Your task to perform on an android device: Search for a new desk on IKEA Image 0: 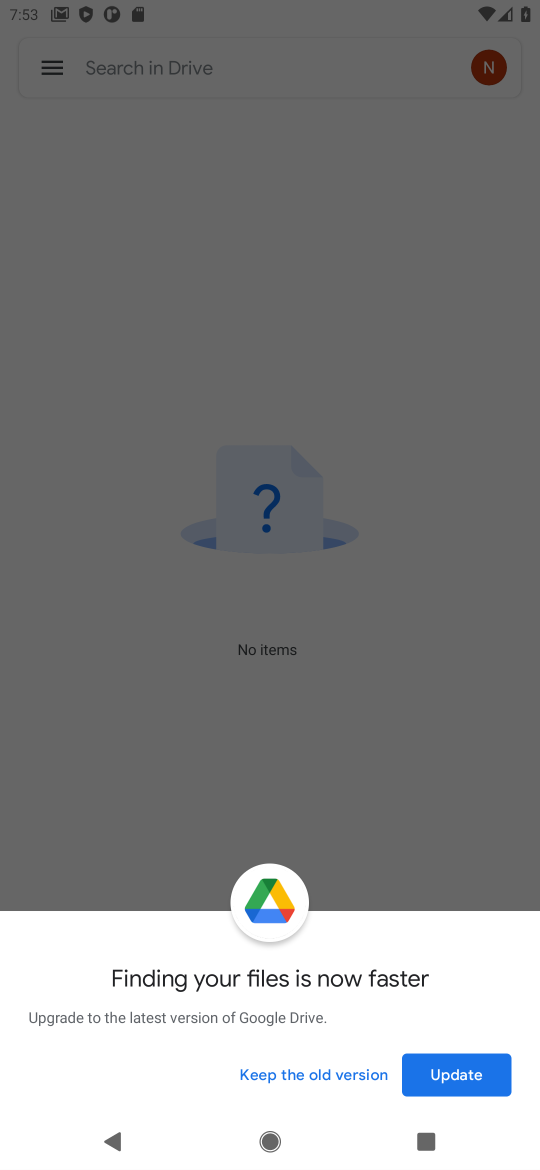
Step 0: press home button
Your task to perform on an android device: Search for a new desk on IKEA Image 1: 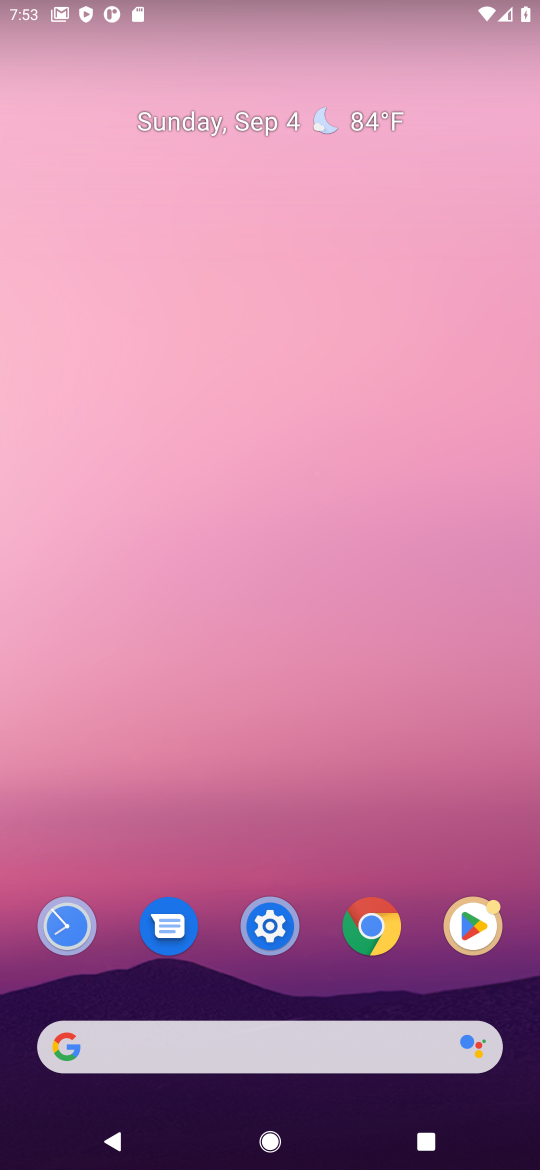
Step 1: click (245, 1041)
Your task to perform on an android device: Search for a new desk on IKEA Image 2: 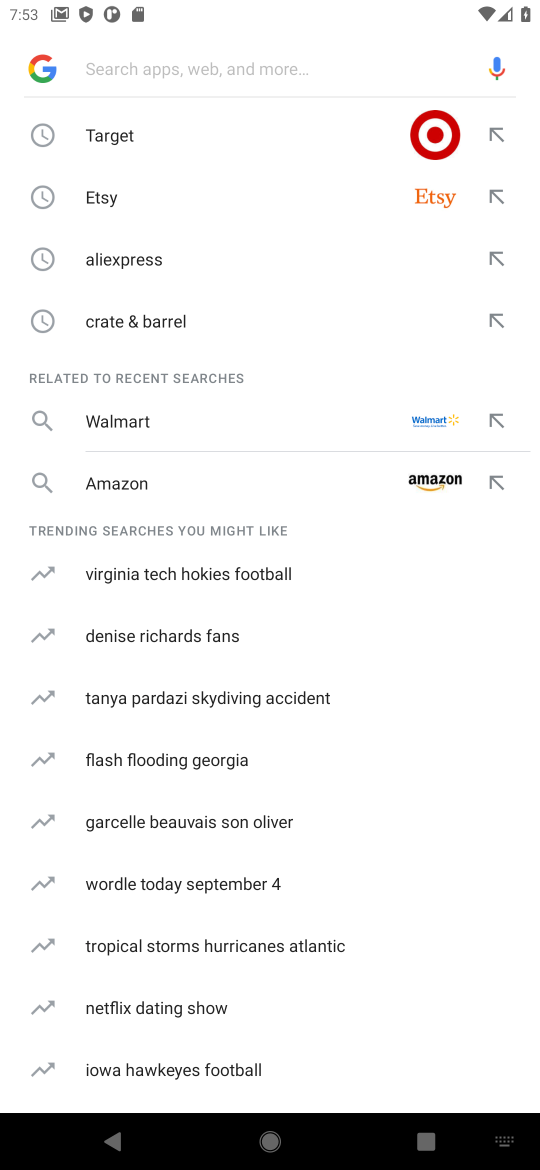
Step 2: type "ikea"
Your task to perform on an android device: Search for a new desk on IKEA Image 3: 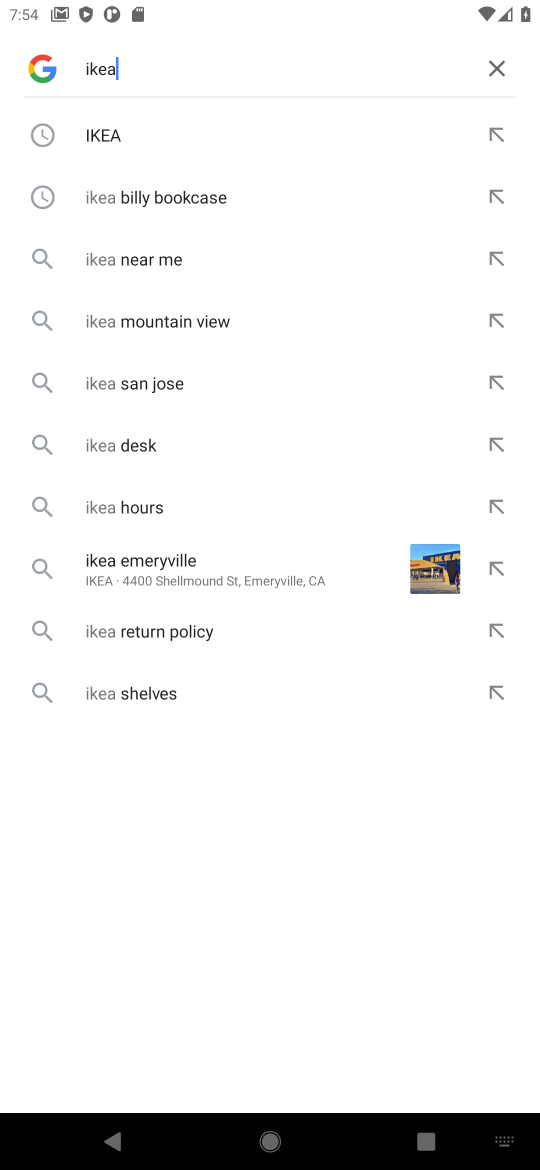
Step 3: click (109, 130)
Your task to perform on an android device: Search for a new desk on IKEA Image 4: 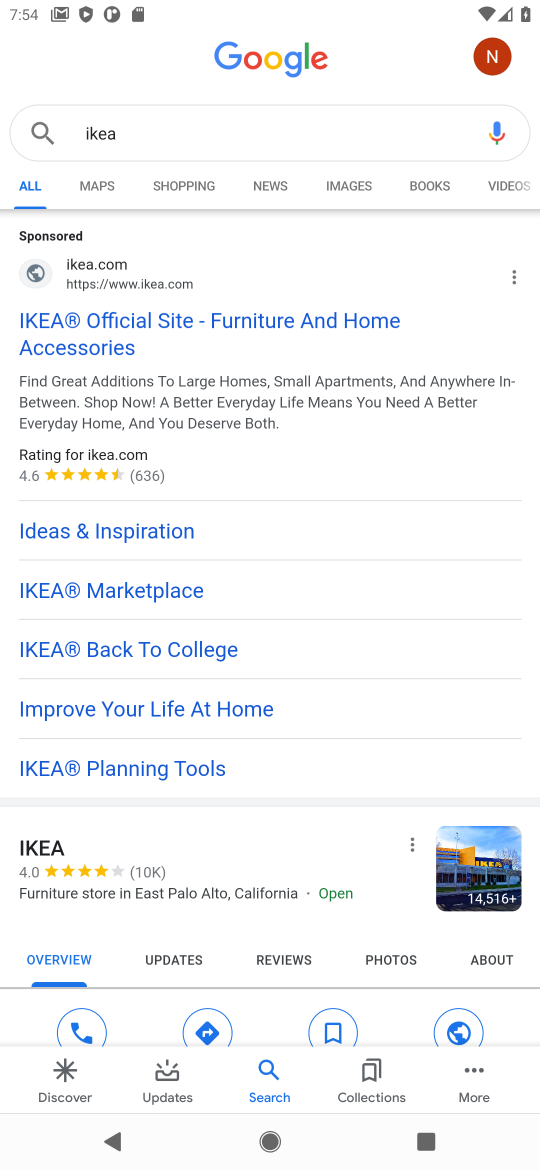
Step 4: click (99, 329)
Your task to perform on an android device: Search for a new desk on IKEA Image 5: 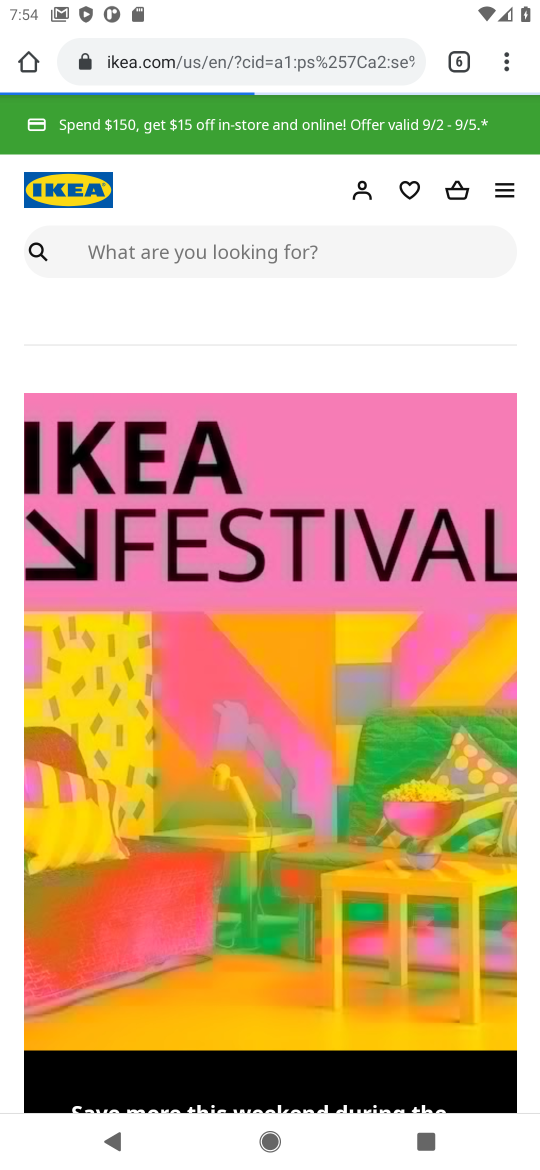
Step 5: click (147, 265)
Your task to perform on an android device: Search for a new desk on IKEA Image 6: 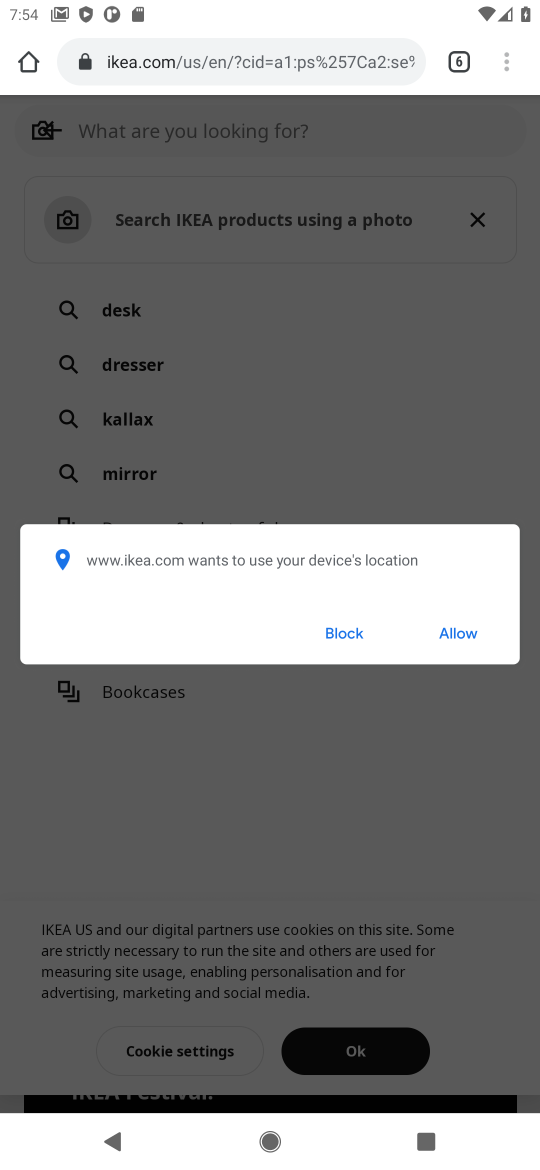
Step 6: type "new"
Your task to perform on an android device: Search for a new desk on IKEA Image 7: 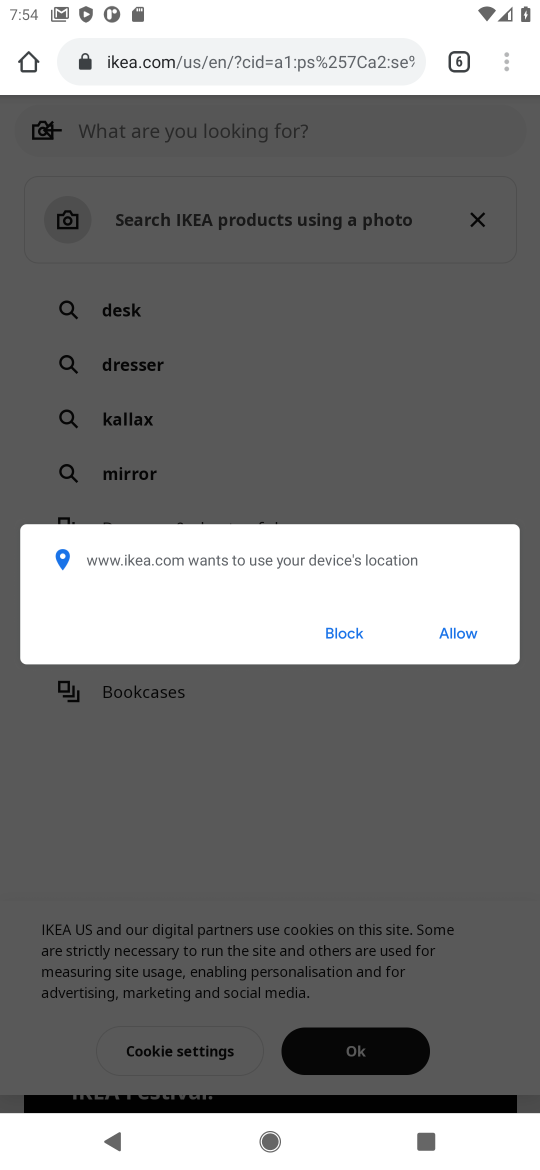
Step 7: click (461, 634)
Your task to perform on an android device: Search for a new desk on IKEA Image 8: 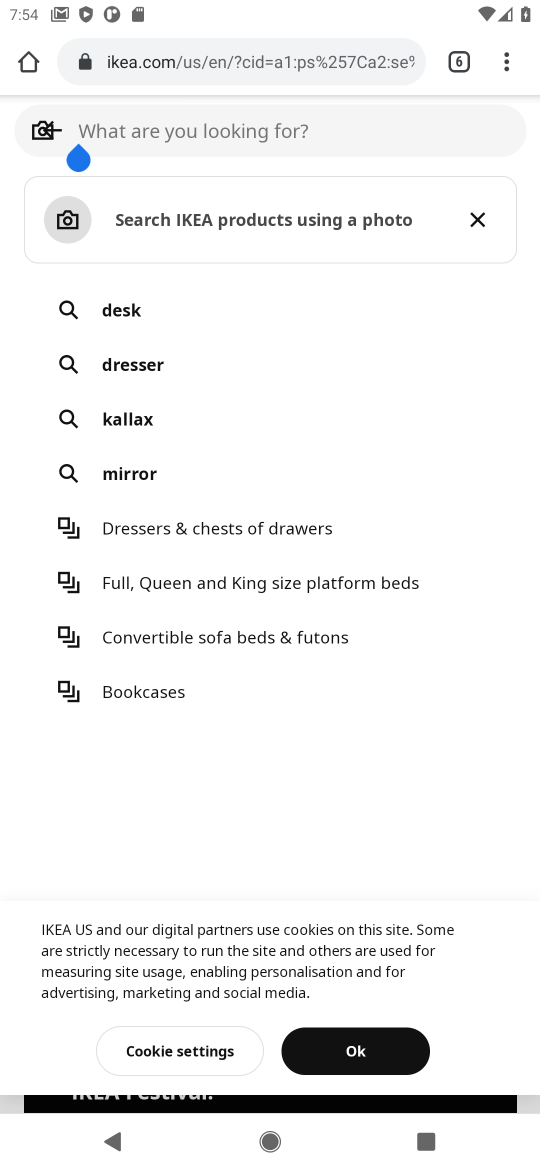
Step 8: click (117, 313)
Your task to perform on an android device: Search for a new desk on IKEA Image 9: 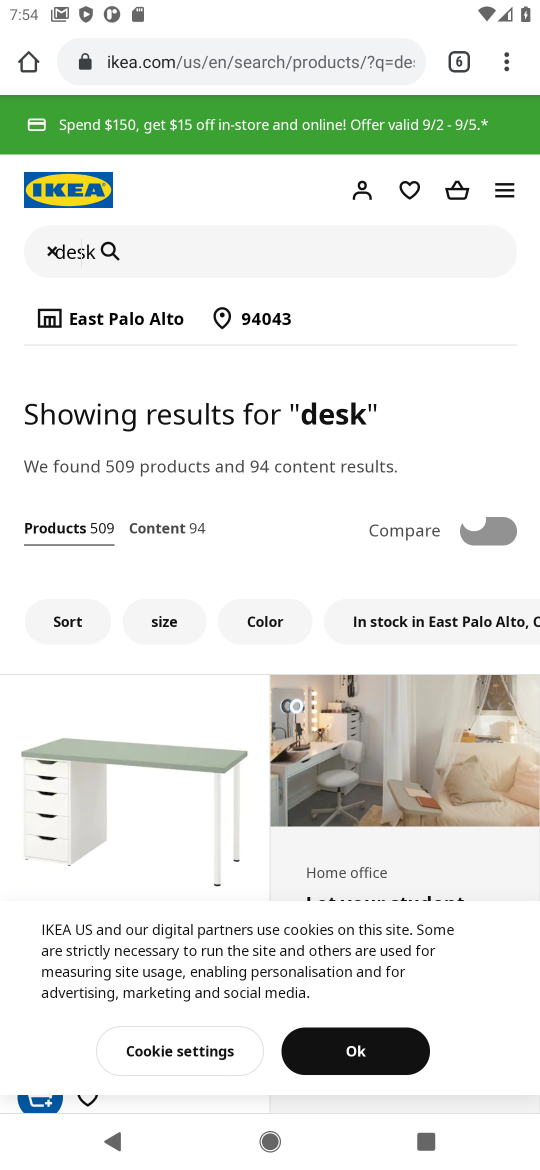
Step 9: task complete